Your task to perform on an android device: clear history in the chrome app Image 0: 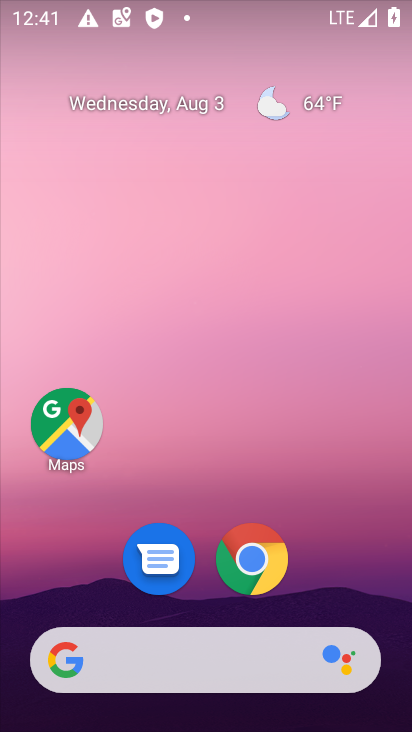
Step 0: click (247, 561)
Your task to perform on an android device: clear history in the chrome app Image 1: 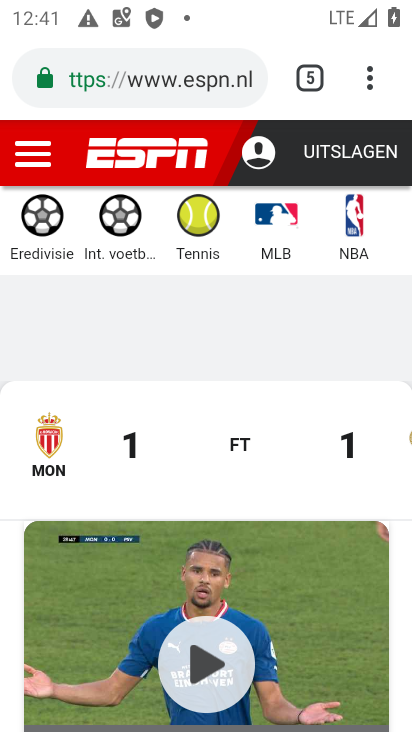
Step 1: click (371, 87)
Your task to perform on an android device: clear history in the chrome app Image 2: 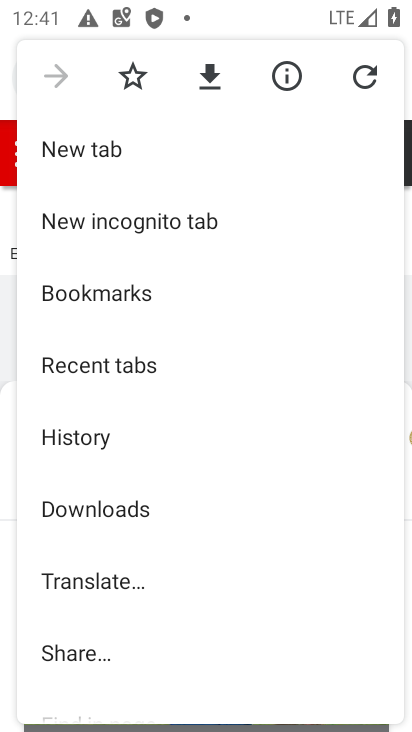
Step 2: click (71, 436)
Your task to perform on an android device: clear history in the chrome app Image 3: 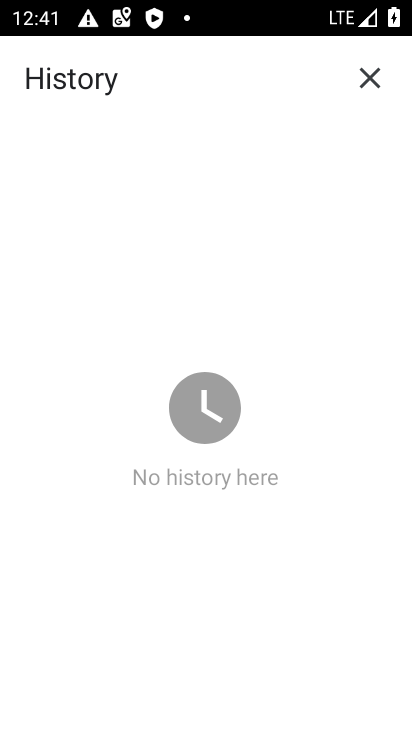
Step 3: task complete